Your task to perform on an android device: Open settings Image 0: 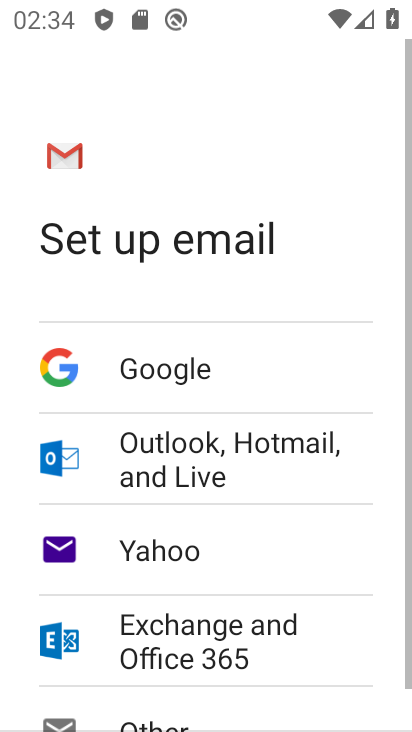
Step 0: press back button
Your task to perform on an android device: Open settings Image 1: 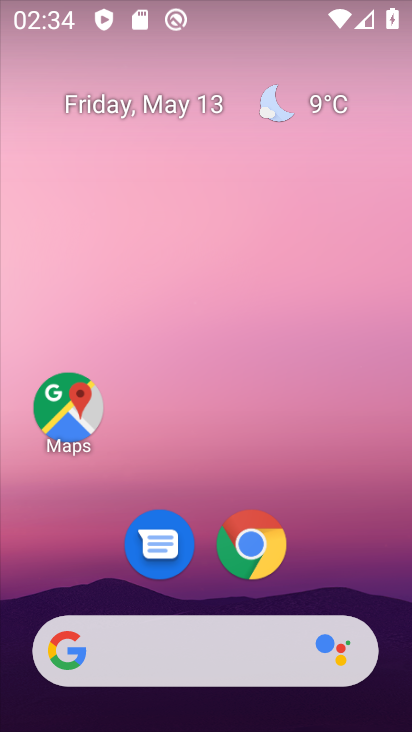
Step 1: drag from (349, 515) to (265, 7)
Your task to perform on an android device: Open settings Image 2: 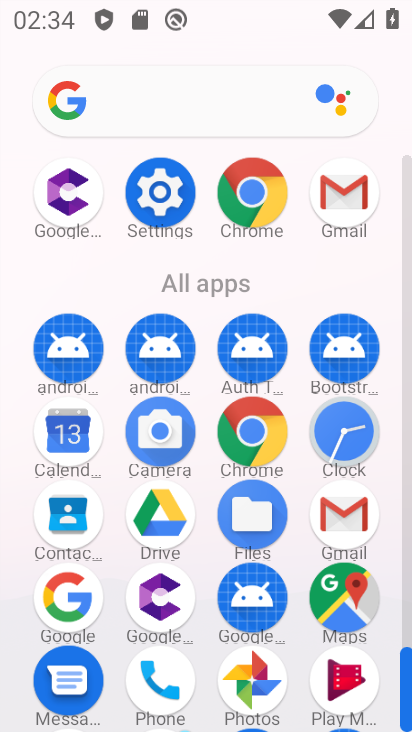
Step 2: click (160, 188)
Your task to perform on an android device: Open settings Image 3: 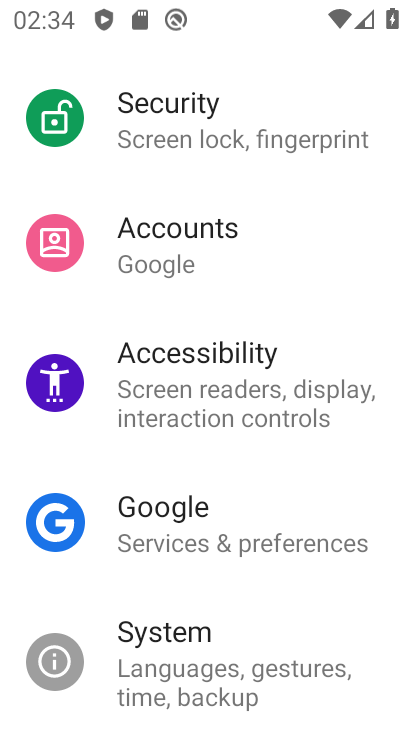
Step 3: task complete